Your task to perform on an android device: Check the news Image 0: 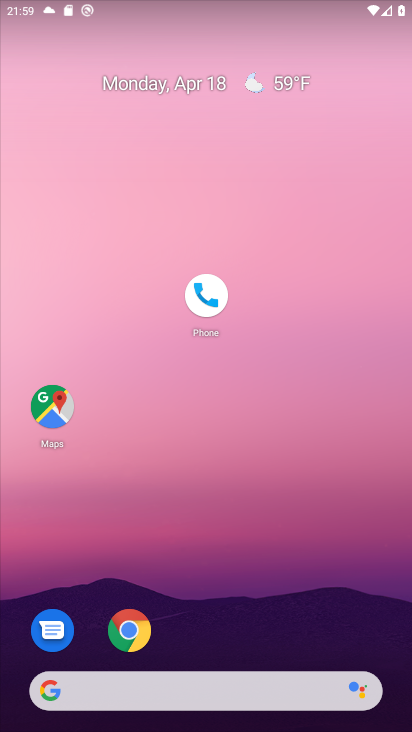
Step 0: drag from (244, 596) to (352, 208)
Your task to perform on an android device: Check the news Image 1: 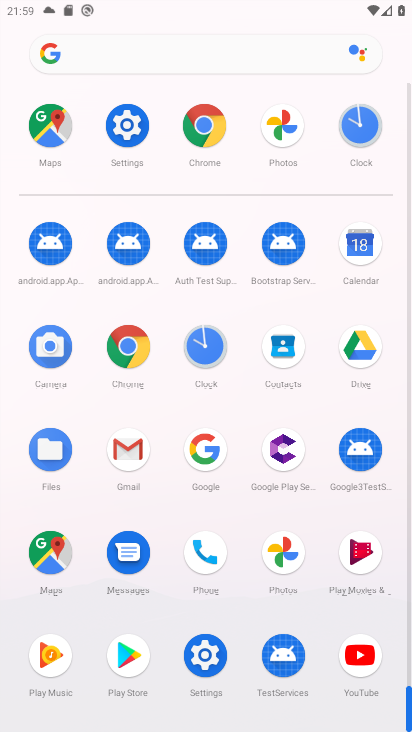
Step 1: click (126, 344)
Your task to perform on an android device: Check the news Image 2: 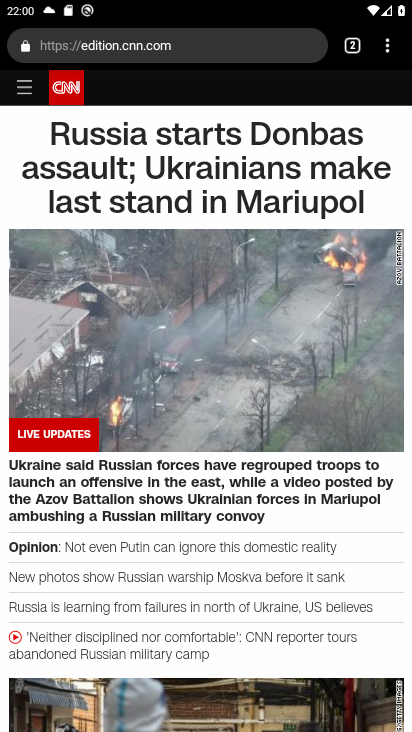
Step 2: click (208, 48)
Your task to perform on an android device: Check the news Image 3: 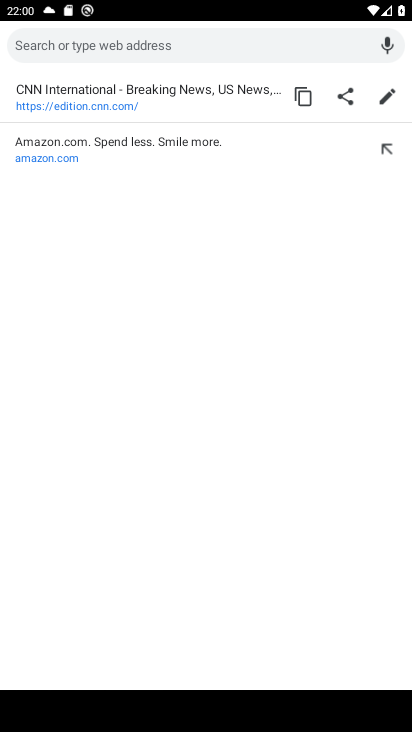
Step 3: type "news"
Your task to perform on an android device: Check the news Image 4: 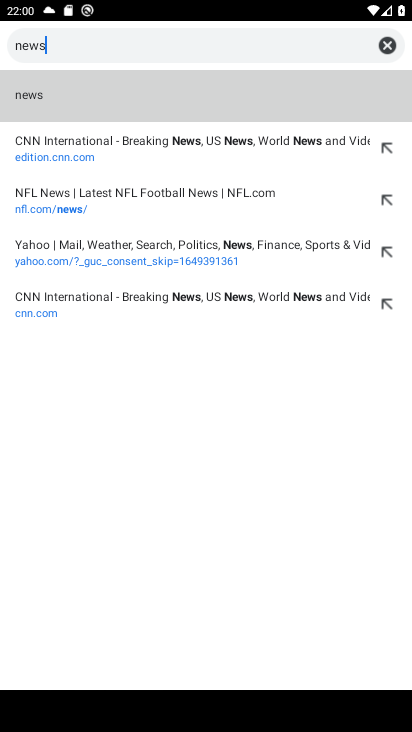
Step 4: click (49, 94)
Your task to perform on an android device: Check the news Image 5: 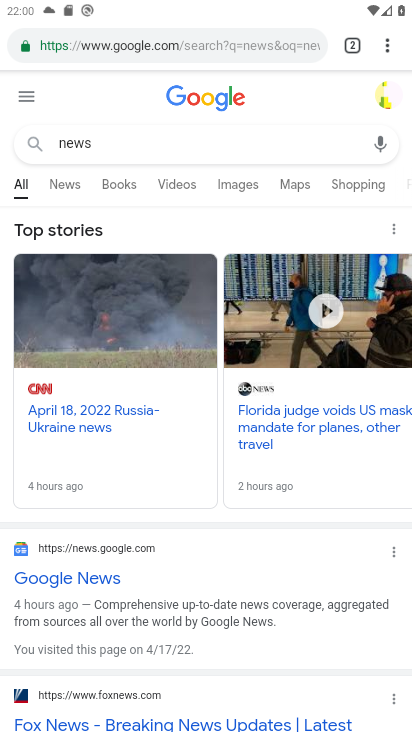
Step 5: click (75, 185)
Your task to perform on an android device: Check the news Image 6: 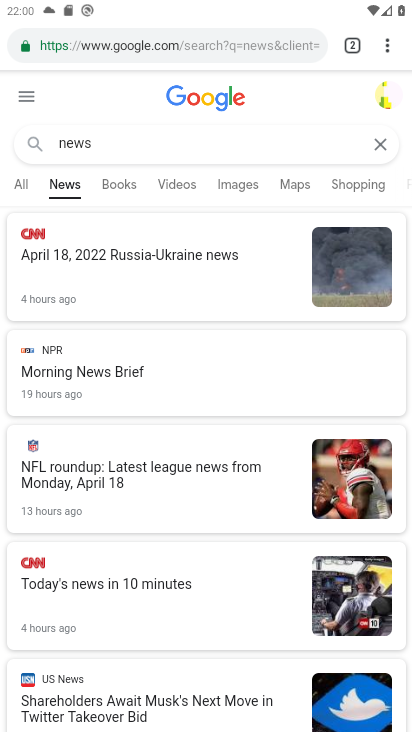
Step 6: task complete